Your task to perform on an android device: Open Amazon Image 0: 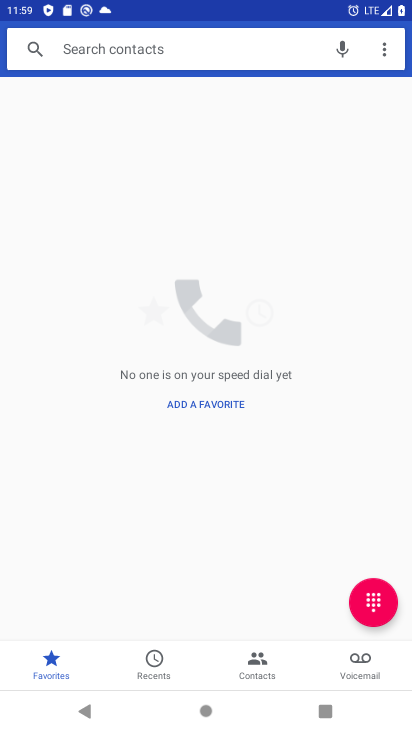
Step 0: press home button
Your task to perform on an android device: Open Amazon Image 1: 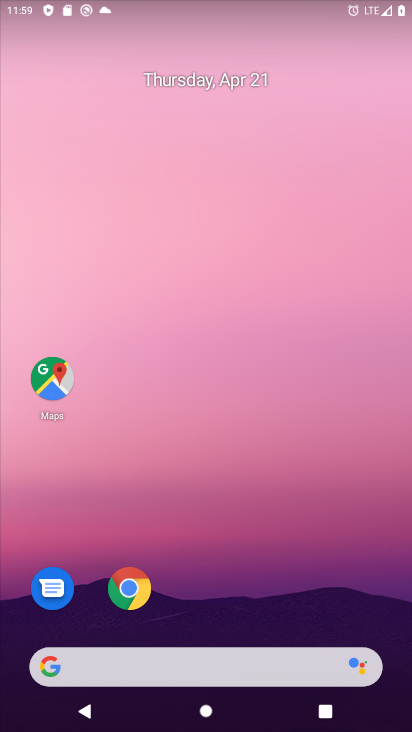
Step 1: drag from (289, 672) to (217, 194)
Your task to perform on an android device: Open Amazon Image 2: 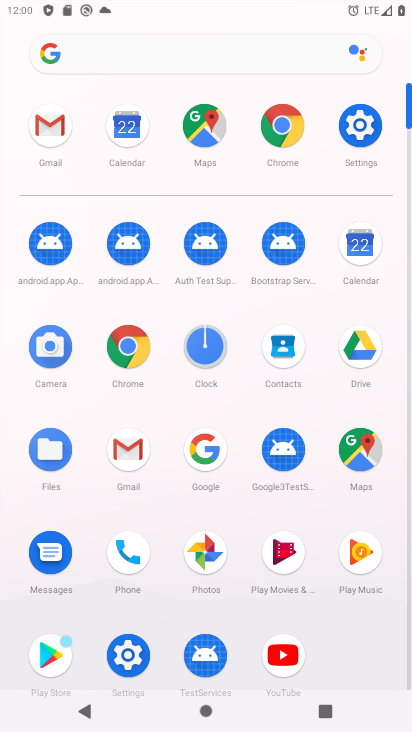
Step 2: click (291, 123)
Your task to perform on an android device: Open Amazon Image 3: 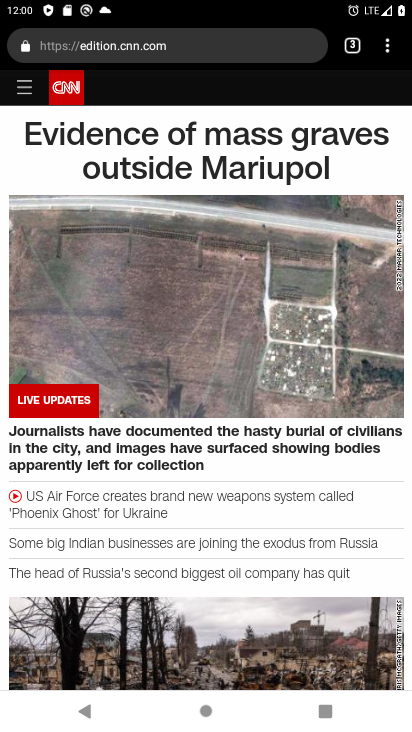
Step 3: click (382, 53)
Your task to perform on an android device: Open Amazon Image 4: 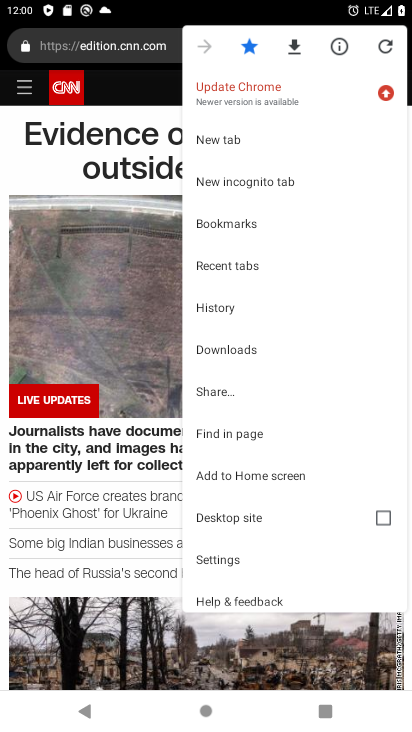
Step 4: click (219, 138)
Your task to perform on an android device: Open Amazon Image 5: 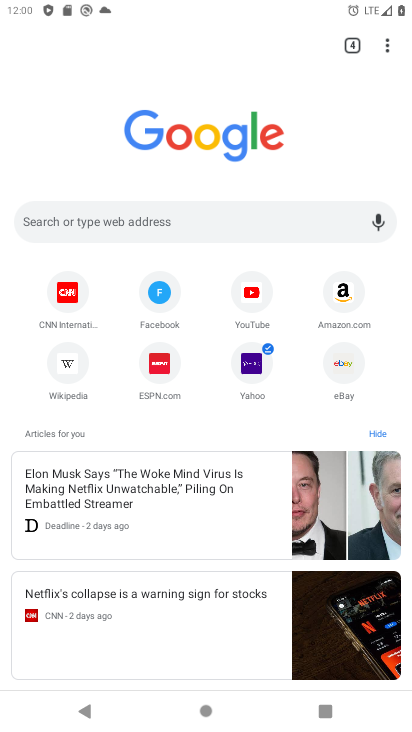
Step 5: click (341, 288)
Your task to perform on an android device: Open Amazon Image 6: 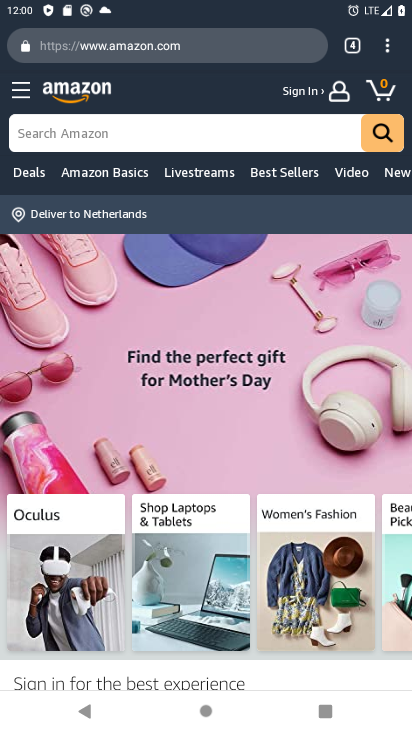
Step 6: task complete